Your task to perform on an android device: Go to internet settings Image 0: 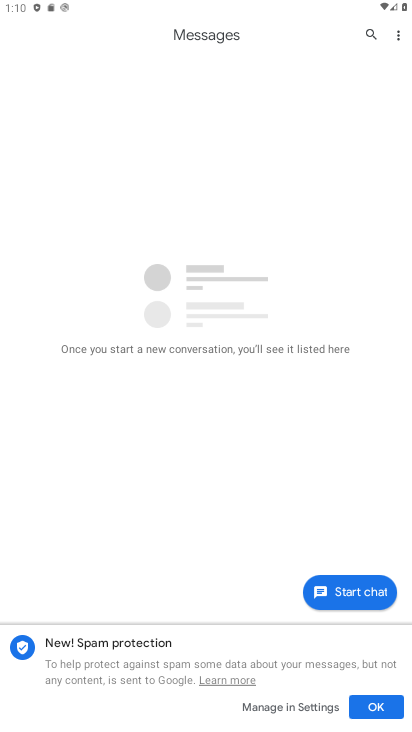
Step 0: task complete